Your task to perform on an android device: Do I have any events today? Image 0: 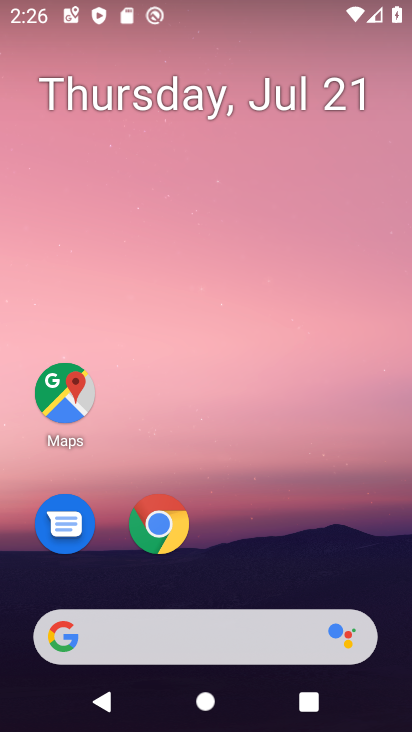
Step 0: drag from (286, 547) to (373, 0)
Your task to perform on an android device: Do I have any events today? Image 1: 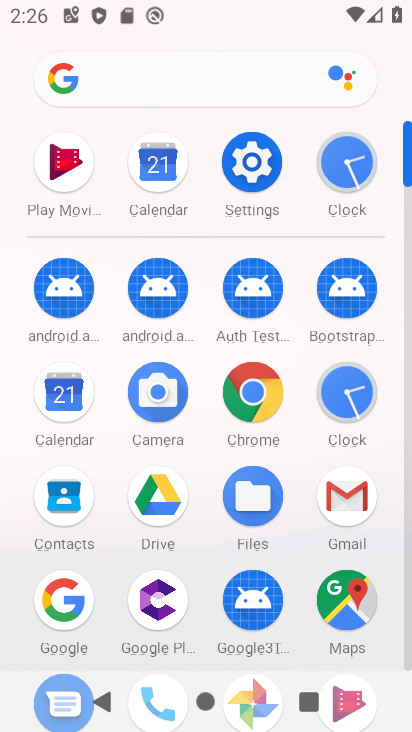
Step 1: click (169, 161)
Your task to perform on an android device: Do I have any events today? Image 2: 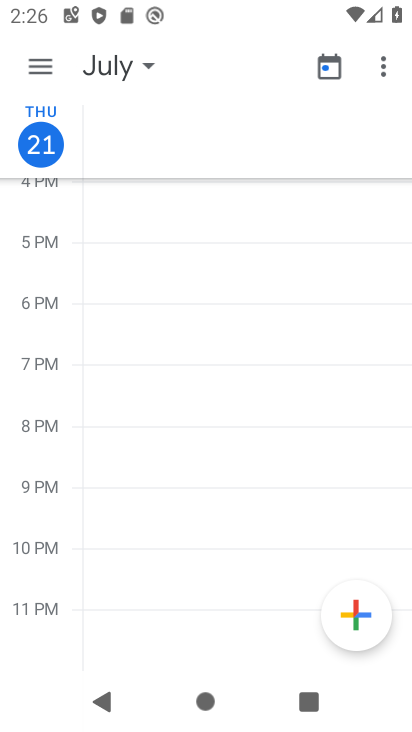
Step 2: task complete